Your task to perform on an android device: Open CNN.com Image 0: 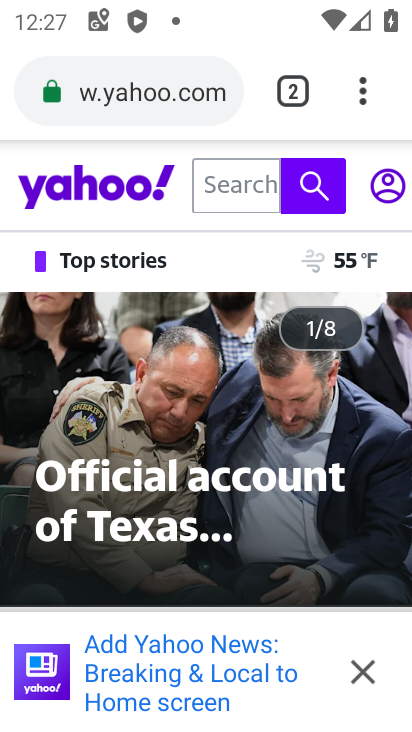
Step 0: click (184, 85)
Your task to perform on an android device: Open CNN.com Image 1: 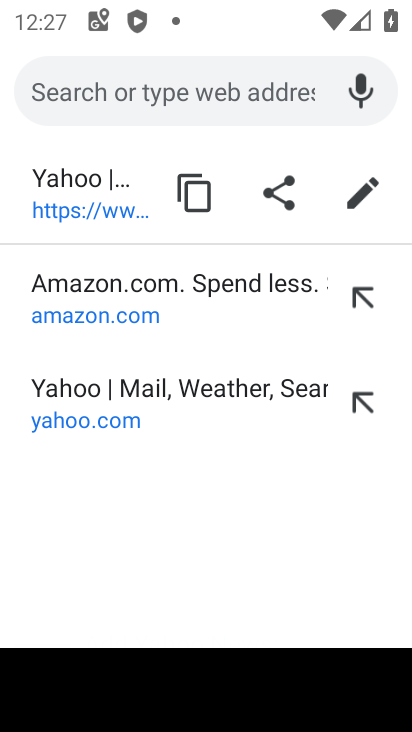
Step 1: type "CNN.com"
Your task to perform on an android device: Open CNN.com Image 2: 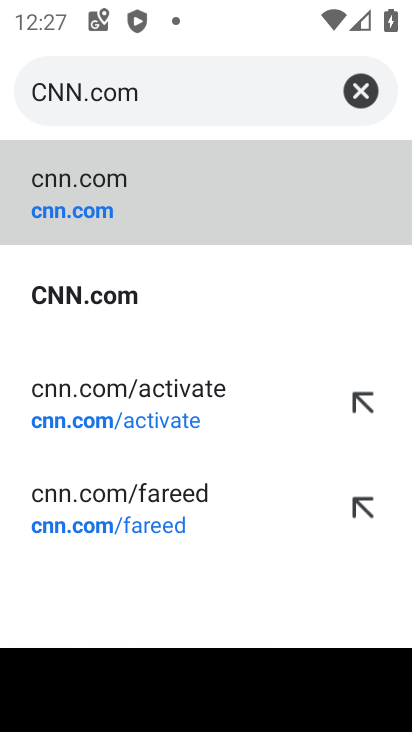
Step 2: click (109, 307)
Your task to perform on an android device: Open CNN.com Image 3: 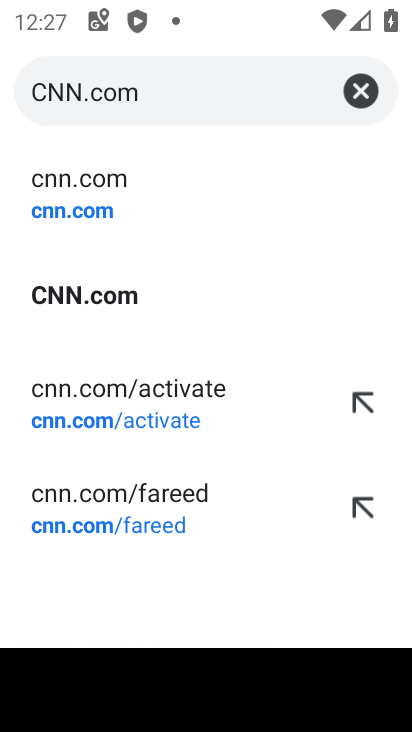
Step 3: click (119, 297)
Your task to perform on an android device: Open CNN.com Image 4: 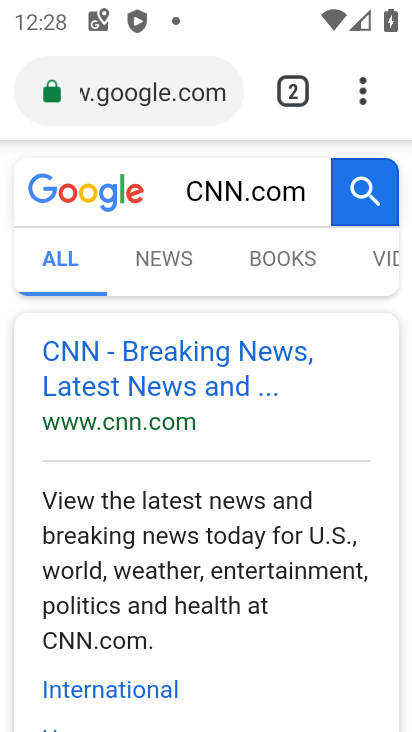
Step 4: click (140, 346)
Your task to perform on an android device: Open CNN.com Image 5: 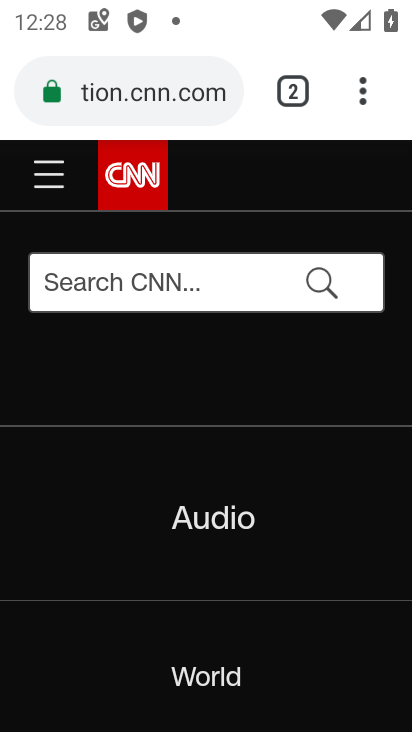
Step 5: task complete